Your task to perform on an android device: turn off location Image 0: 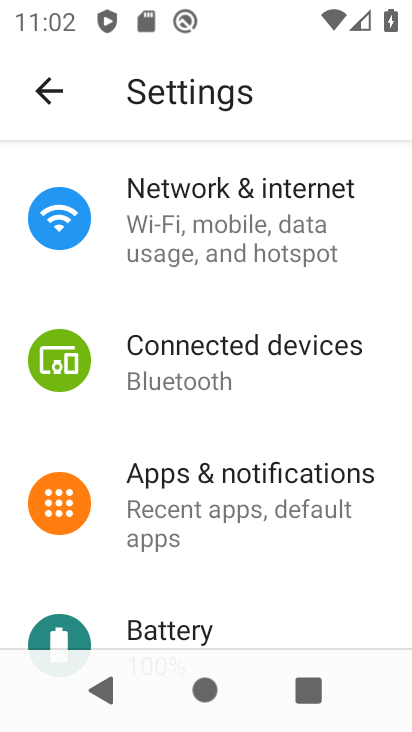
Step 0: drag from (160, 599) to (307, 206)
Your task to perform on an android device: turn off location Image 1: 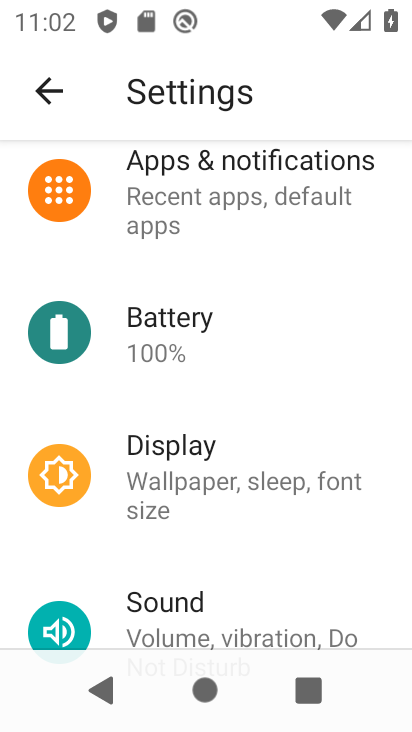
Step 1: drag from (136, 545) to (269, 127)
Your task to perform on an android device: turn off location Image 2: 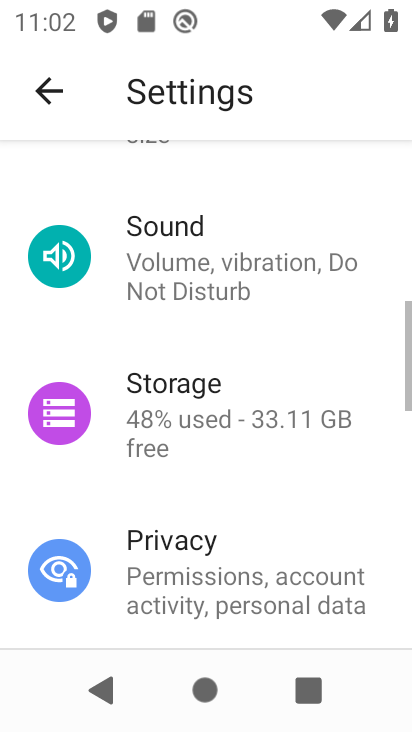
Step 2: drag from (197, 560) to (297, 173)
Your task to perform on an android device: turn off location Image 3: 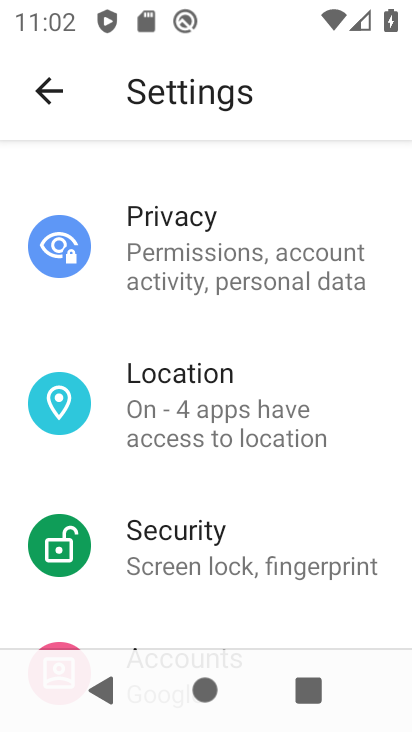
Step 3: click (234, 410)
Your task to perform on an android device: turn off location Image 4: 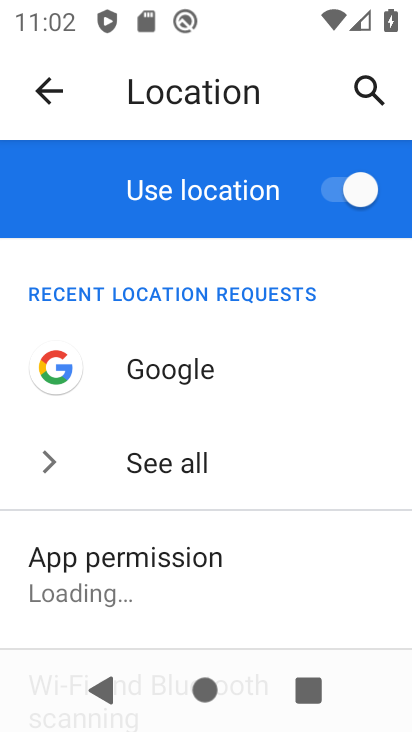
Step 4: click (338, 193)
Your task to perform on an android device: turn off location Image 5: 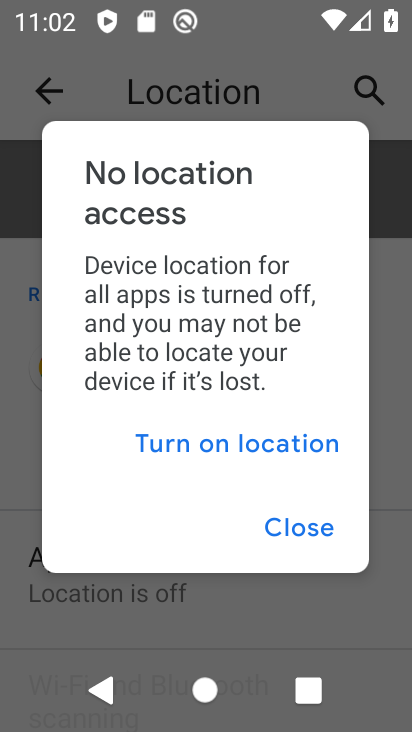
Step 5: task complete